Your task to perform on an android device: read, delete, or share a saved page in the chrome app Image 0: 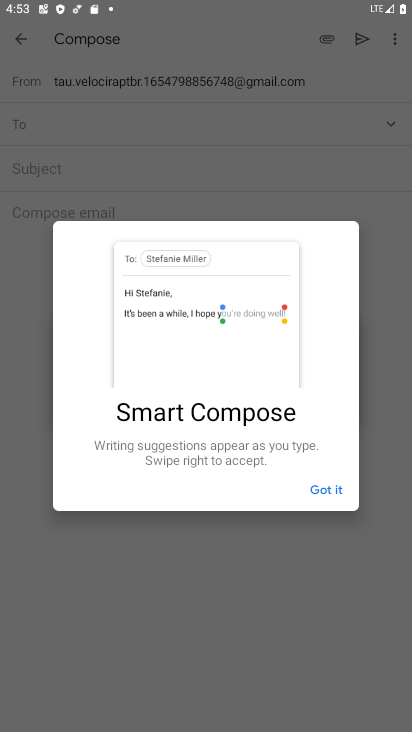
Step 0: press home button
Your task to perform on an android device: read, delete, or share a saved page in the chrome app Image 1: 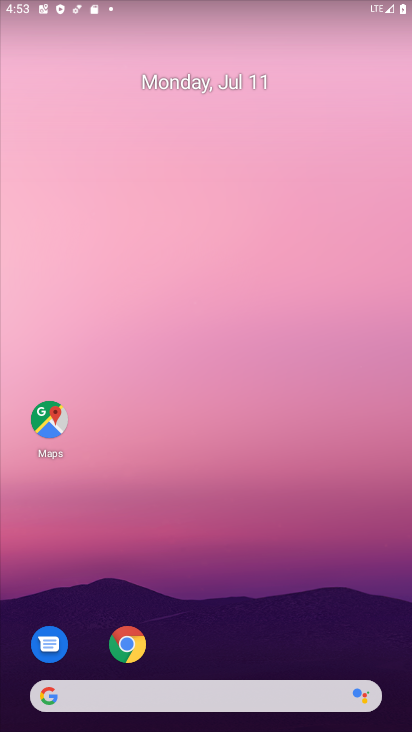
Step 1: drag from (302, 623) to (356, 9)
Your task to perform on an android device: read, delete, or share a saved page in the chrome app Image 2: 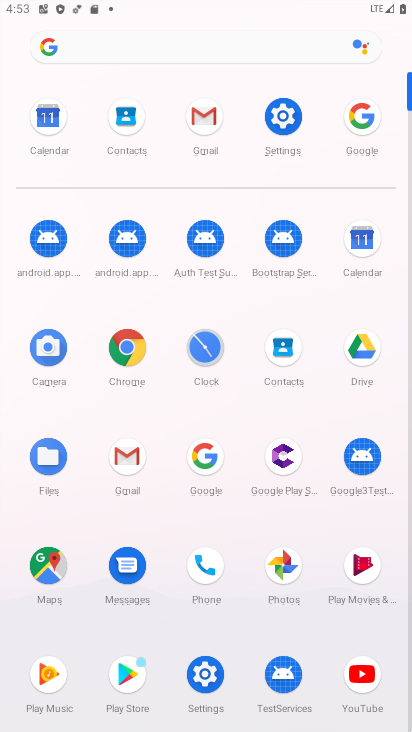
Step 2: click (126, 341)
Your task to perform on an android device: read, delete, or share a saved page in the chrome app Image 3: 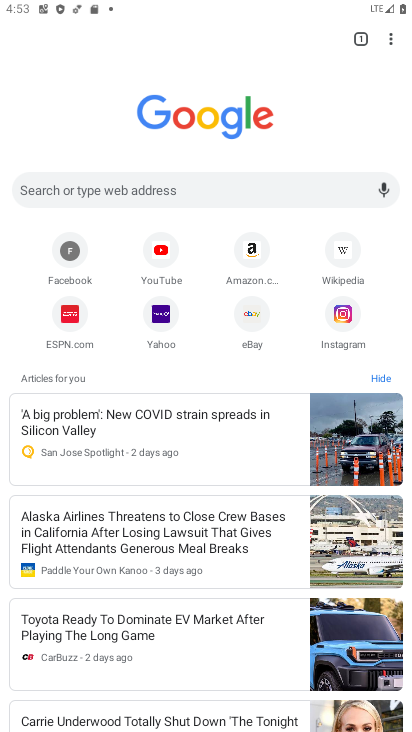
Step 3: click (389, 30)
Your task to perform on an android device: read, delete, or share a saved page in the chrome app Image 4: 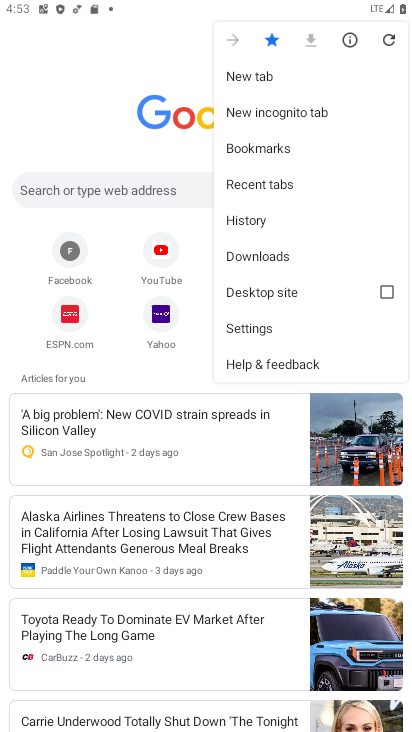
Step 4: click (277, 259)
Your task to perform on an android device: read, delete, or share a saved page in the chrome app Image 5: 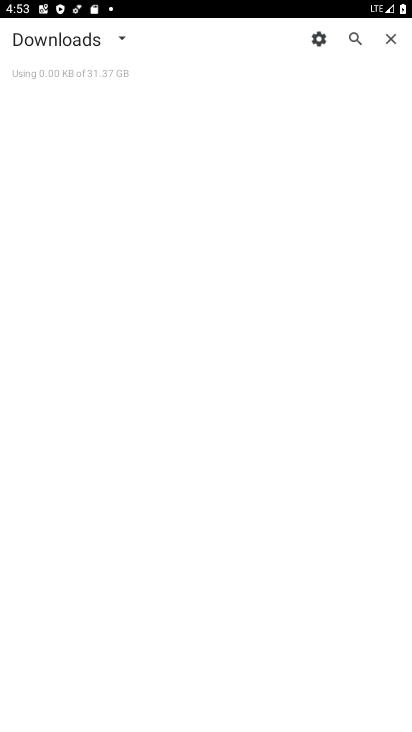
Step 5: task complete